Your task to perform on an android device: toggle sleep mode Image 0: 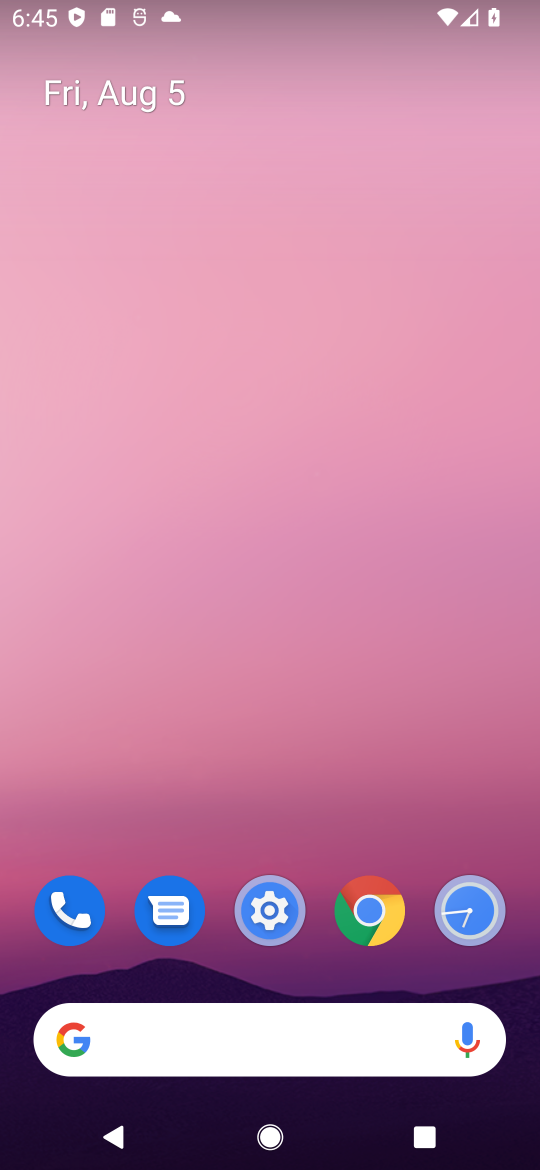
Step 0: drag from (354, 999) to (247, 36)
Your task to perform on an android device: toggle sleep mode Image 1: 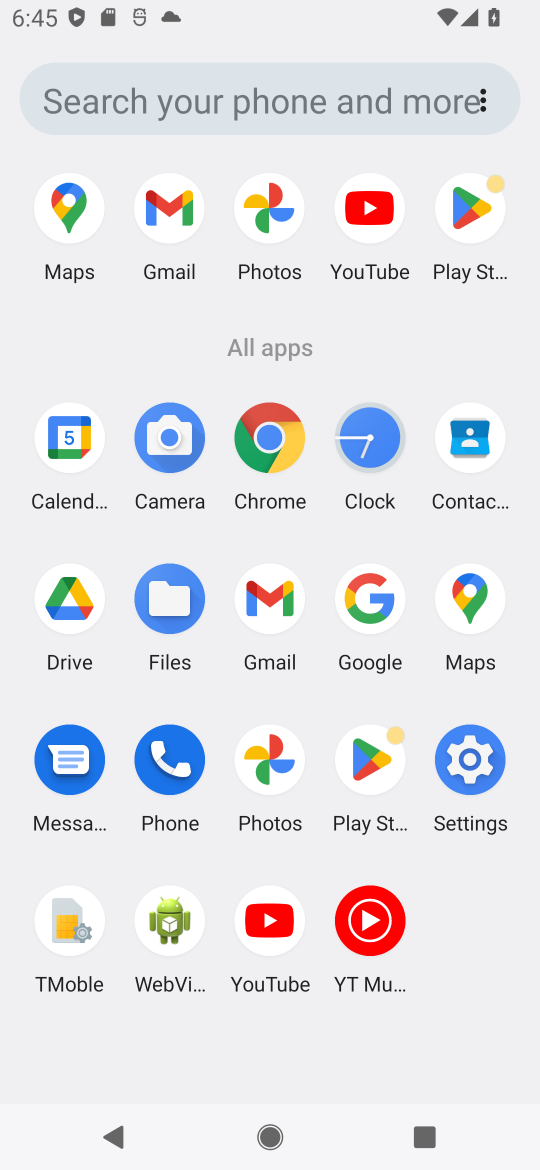
Step 1: click (483, 760)
Your task to perform on an android device: toggle sleep mode Image 2: 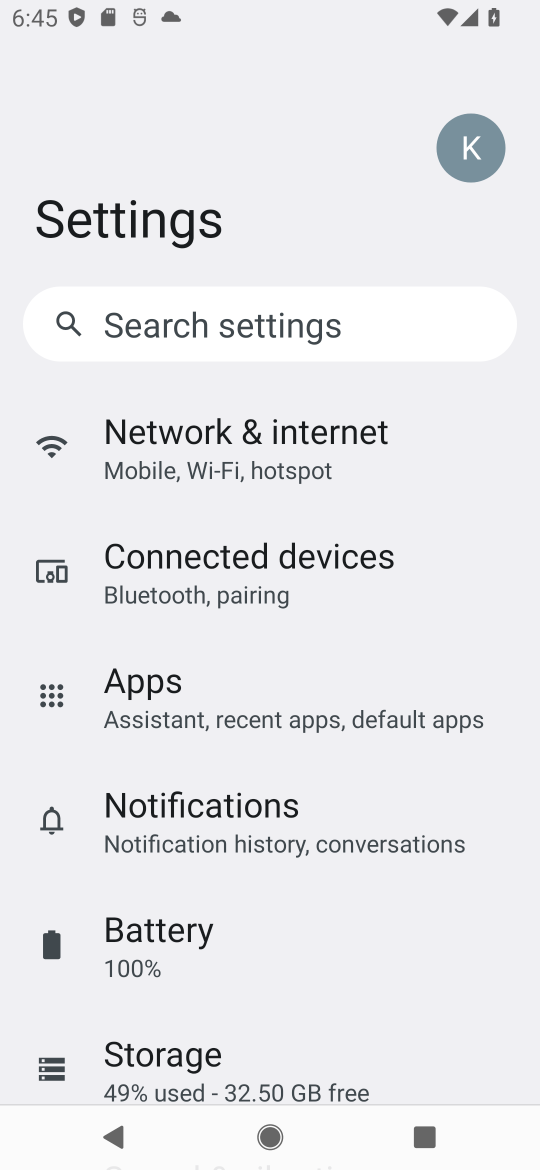
Step 2: task complete